Your task to perform on an android device: View the shopping cart on walmart.com. Search for "razer blade" on walmart.com, select the first entry, and add it to the cart. Image 0: 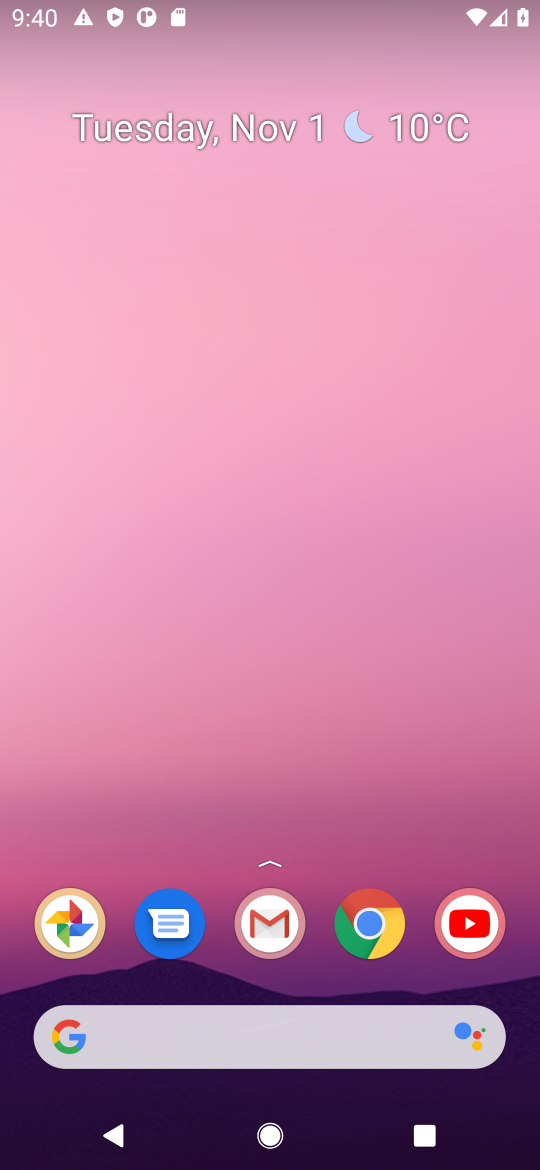
Step 0: drag from (309, 987) to (255, 0)
Your task to perform on an android device: View the shopping cart on walmart.com. Search for "razer blade" on walmart.com, select the first entry, and add it to the cart. Image 1: 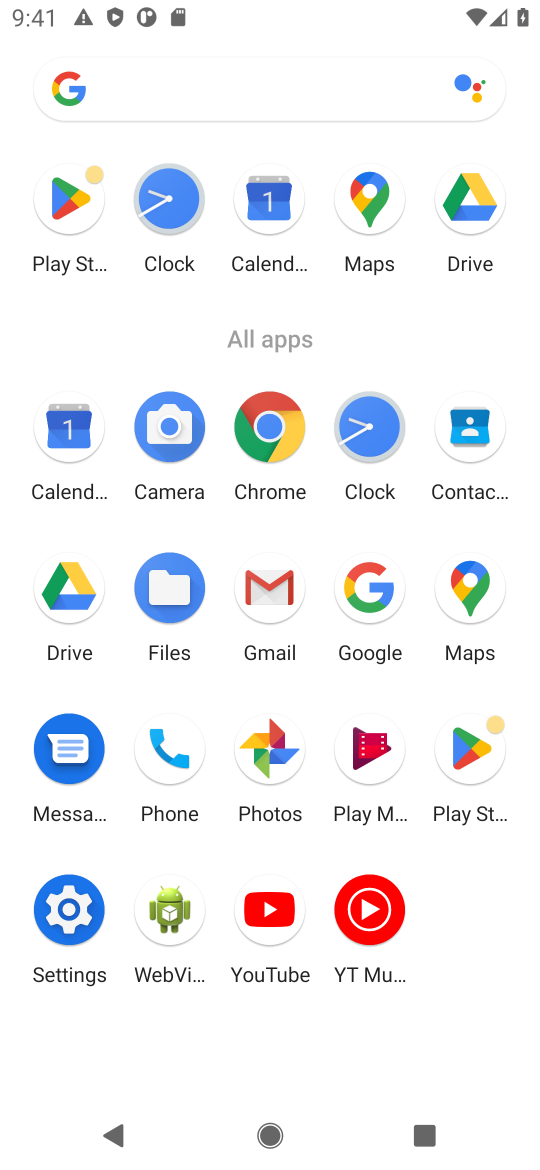
Step 1: click (270, 413)
Your task to perform on an android device: View the shopping cart on walmart.com. Search for "razer blade" on walmart.com, select the first entry, and add it to the cart. Image 2: 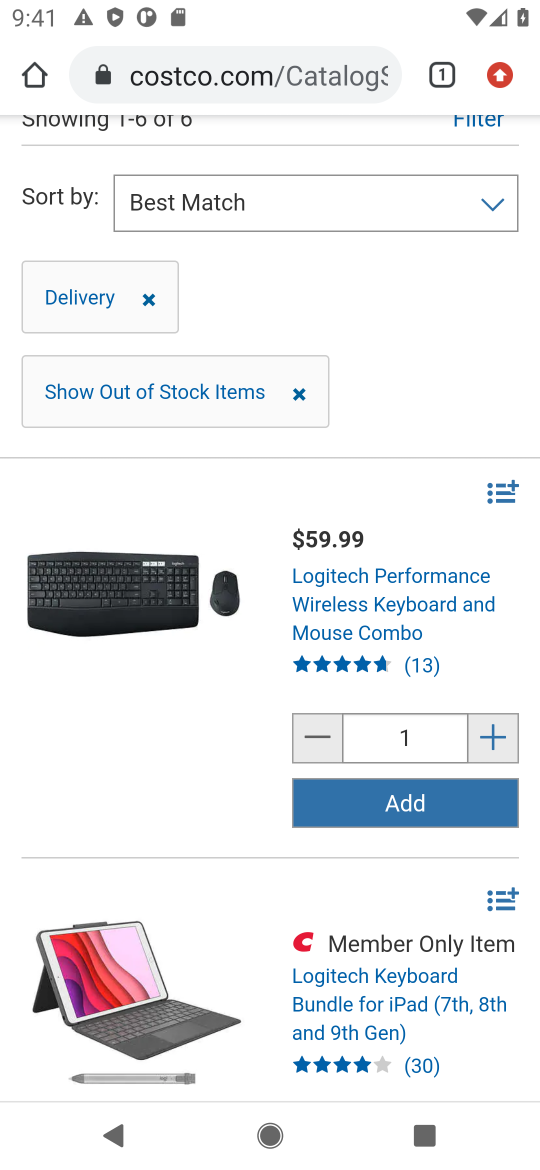
Step 2: click (230, 65)
Your task to perform on an android device: View the shopping cart on walmart.com. Search for "razer blade" on walmart.com, select the first entry, and add it to the cart. Image 3: 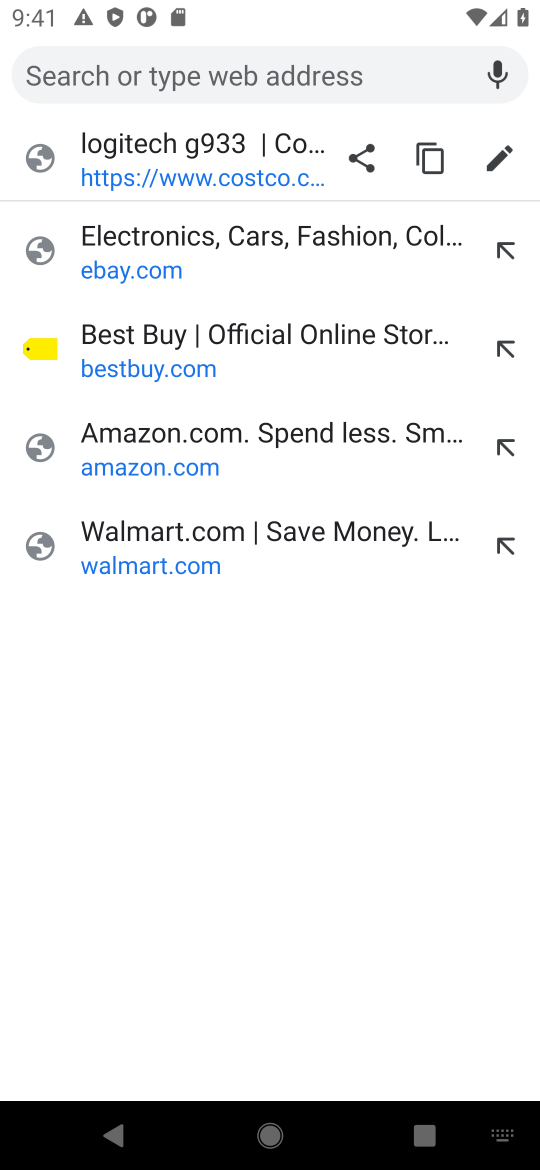
Step 3: type "walmart.com"
Your task to perform on an android device: View the shopping cart on walmart.com. Search for "razer blade" on walmart.com, select the first entry, and add it to the cart. Image 4: 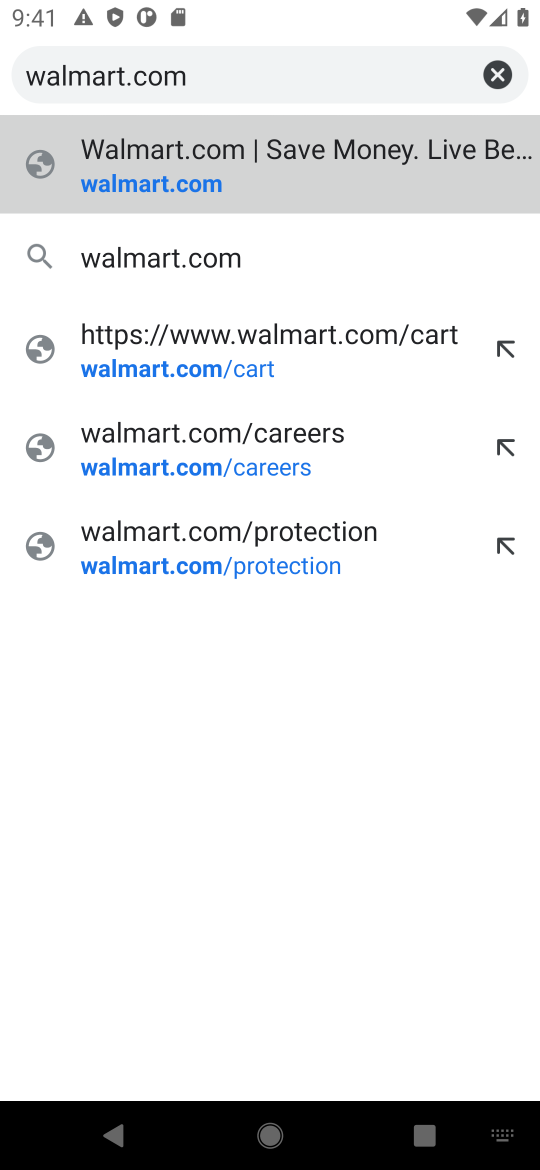
Step 4: press enter
Your task to perform on an android device: View the shopping cart on walmart.com. Search for "razer blade" on walmart.com, select the first entry, and add it to the cart. Image 5: 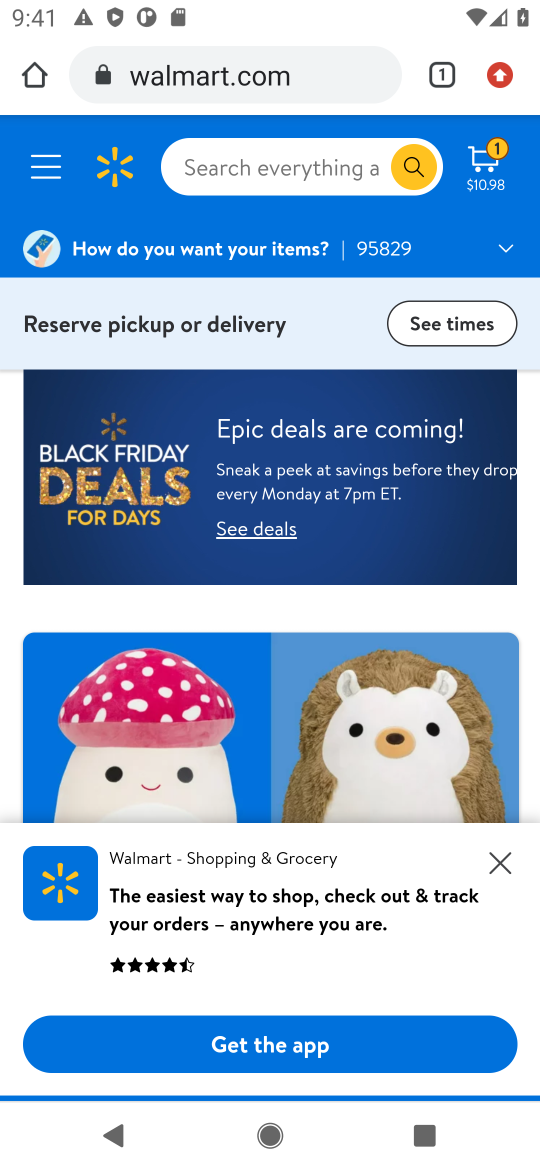
Step 5: click (492, 158)
Your task to perform on an android device: View the shopping cart on walmart.com. Search for "razer blade" on walmart.com, select the first entry, and add it to the cart. Image 6: 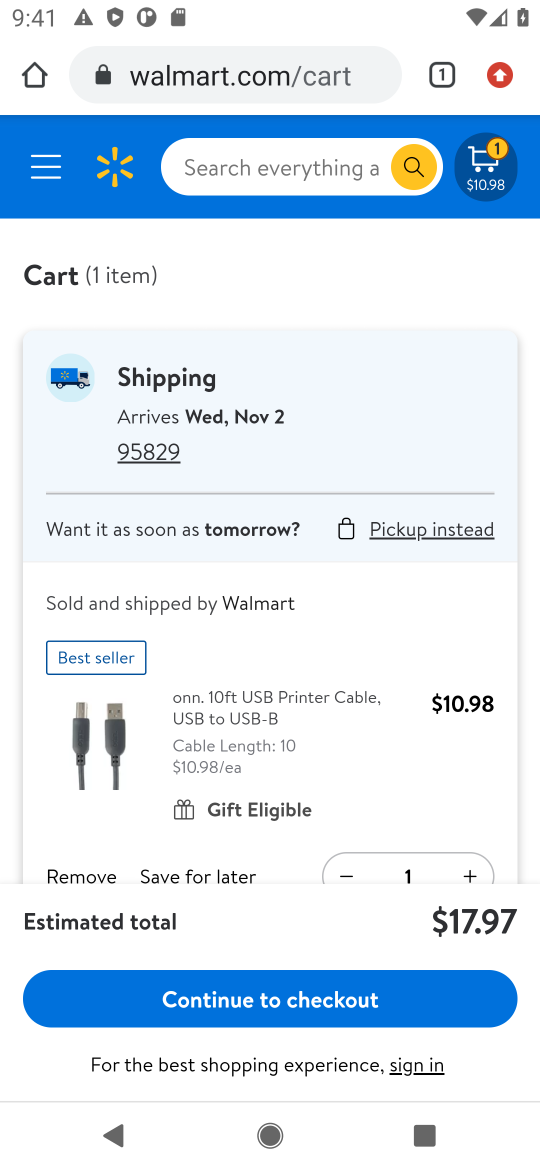
Step 6: drag from (336, 820) to (329, 432)
Your task to perform on an android device: View the shopping cart on walmart.com. Search for "razer blade" on walmart.com, select the first entry, and add it to the cart. Image 7: 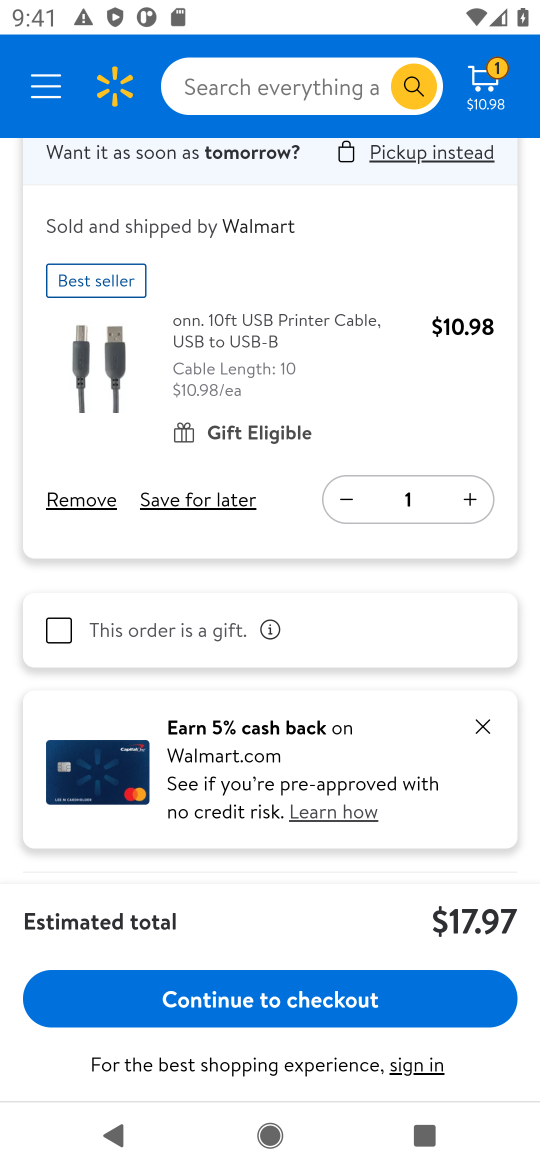
Step 7: click (80, 506)
Your task to perform on an android device: View the shopping cart on walmart.com. Search for "razer blade" on walmart.com, select the first entry, and add it to the cart. Image 8: 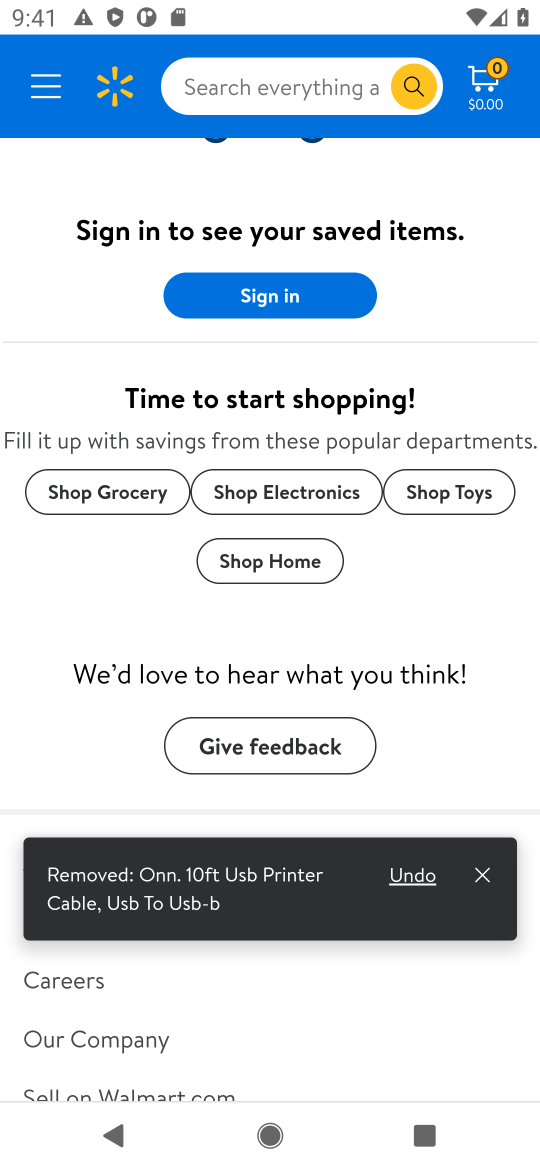
Step 8: click (289, 77)
Your task to perform on an android device: View the shopping cart on walmart.com. Search for "razer blade" on walmart.com, select the first entry, and add it to the cart. Image 9: 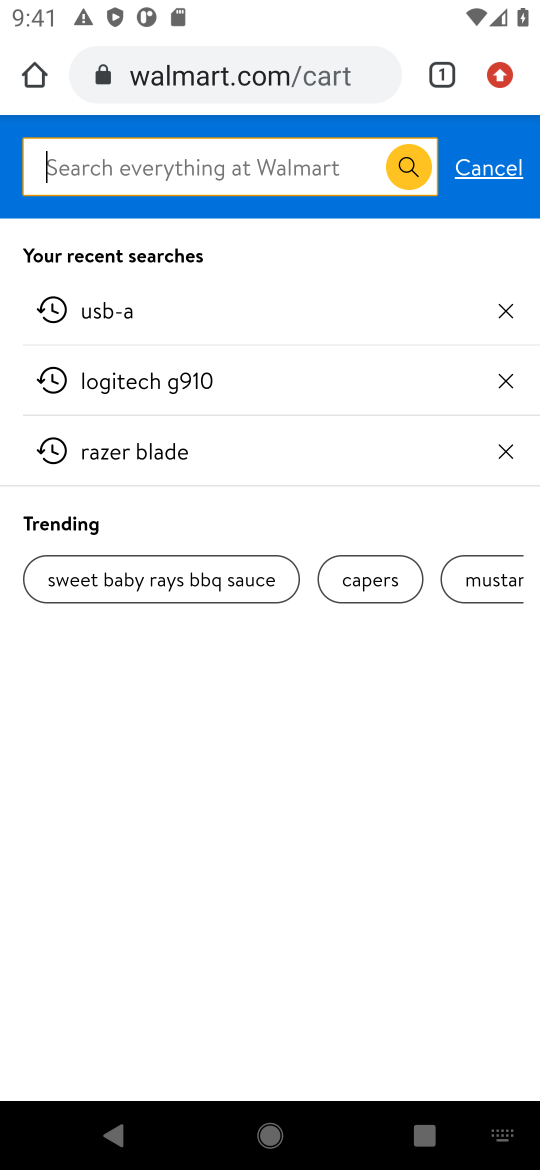
Step 9: type "razer blade"
Your task to perform on an android device: View the shopping cart on walmart.com. Search for "razer blade" on walmart.com, select the first entry, and add it to the cart. Image 10: 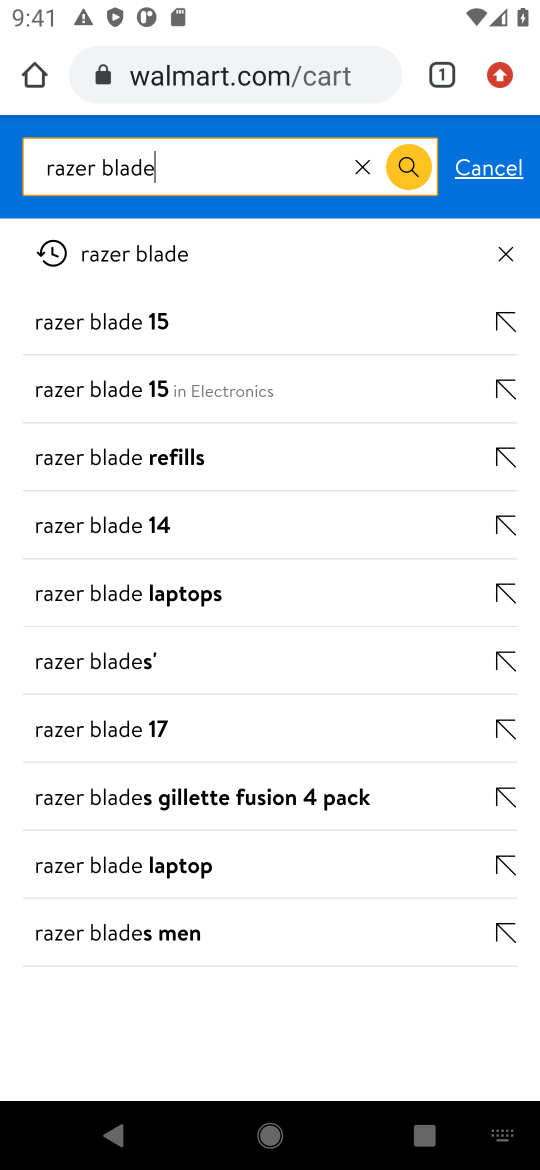
Step 10: press enter
Your task to perform on an android device: View the shopping cart on walmart.com. Search for "razer blade" on walmart.com, select the first entry, and add it to the cart. Image 11: 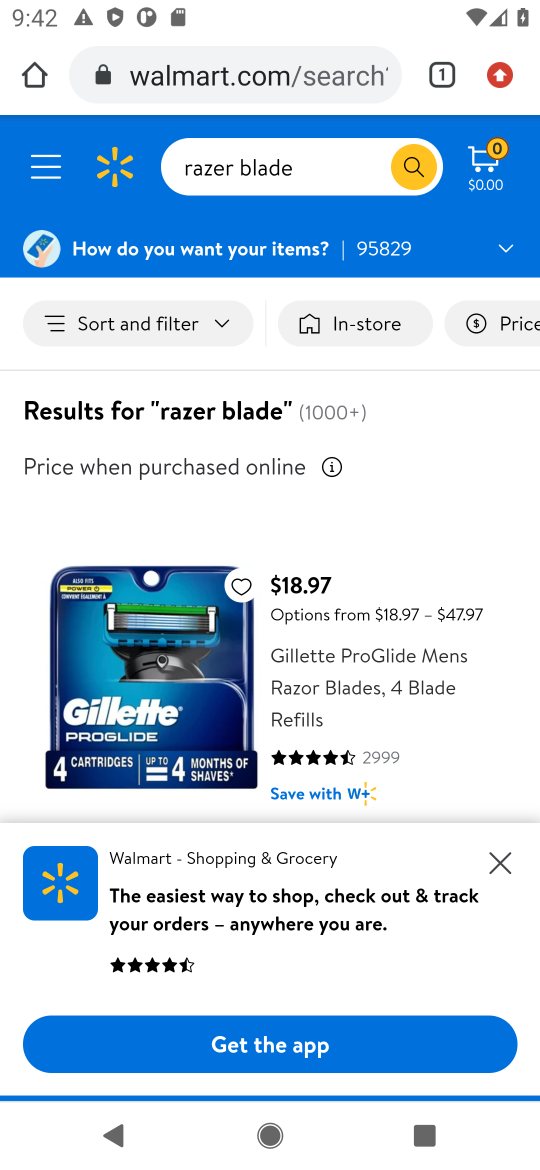
Step 11: click (157, 653)
Your task to perform on an android device: View the shopping cart on walmart.com. Search for "razer blade" on walmart.com, select the first entry, and add it to the cart. Image 12: 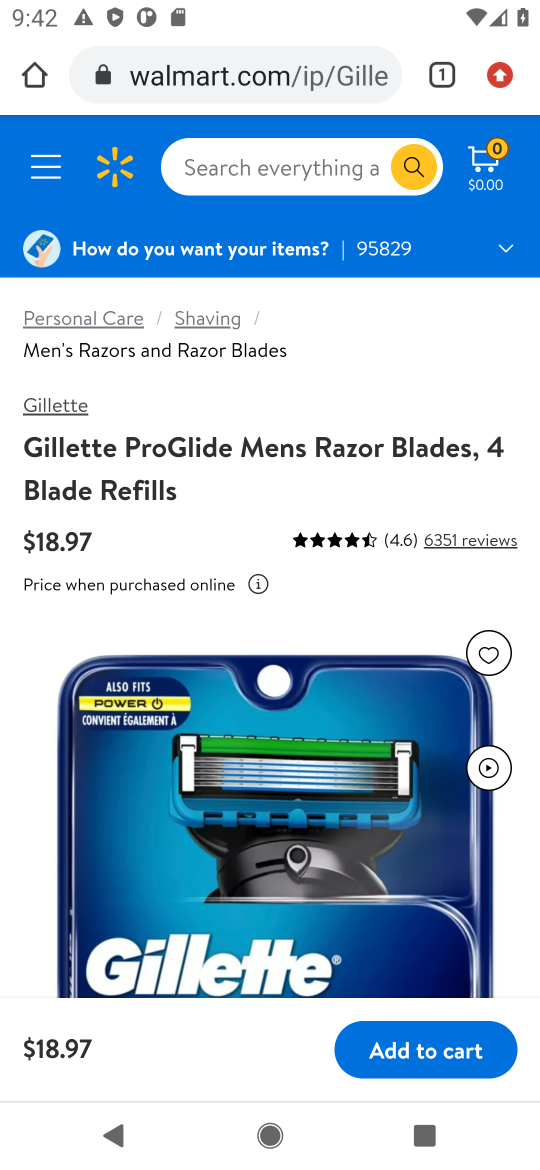
Step 12: drag from (295, 851) to (332, 594)
Your task to perform on an android device: View the shopping cart on walmart.com. Search for "razer blade" on walmart.com, select the first entry, and add it to the cart. Image 13: 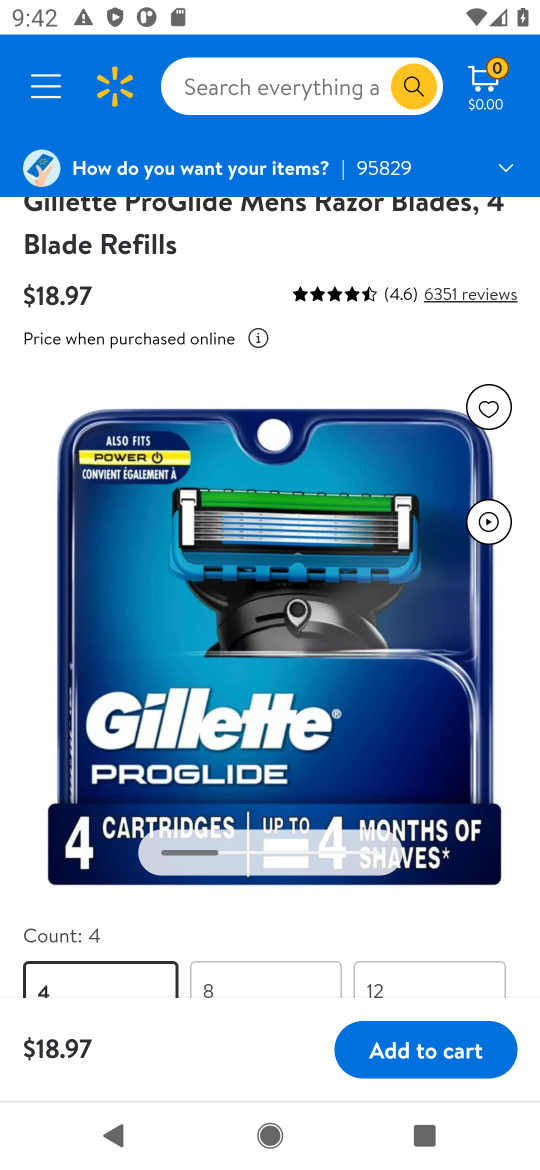
Step 13: click (435, 1049)
Your task to perform on an android device: View the shopping cart on walmart.com. Search for "razer blade" on walmart.com, select the first entry, and add it to the cart. Image 14: 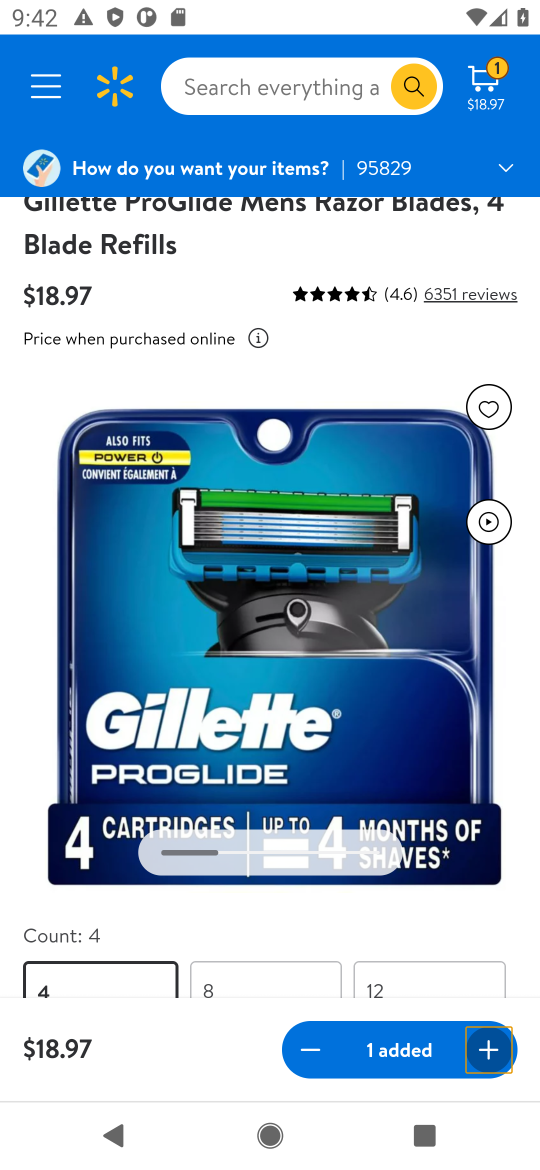
Step 14: task complete